Your task to perform on an android device: delete a single message in the gmail app Image 0: 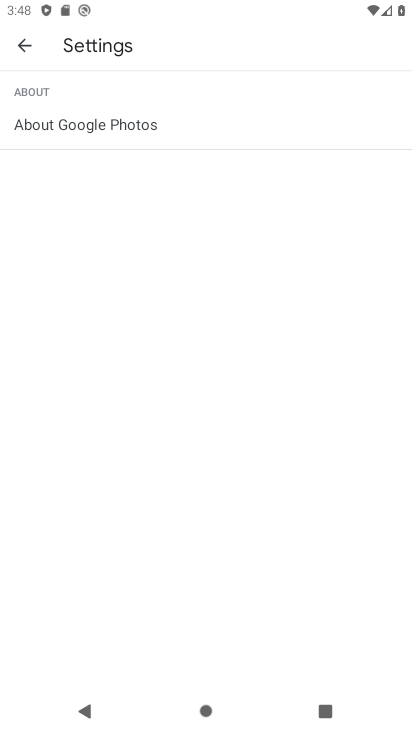
Step 0: press home button
Your task to perform on an android device: delete a single message in the gmail app Image 1: 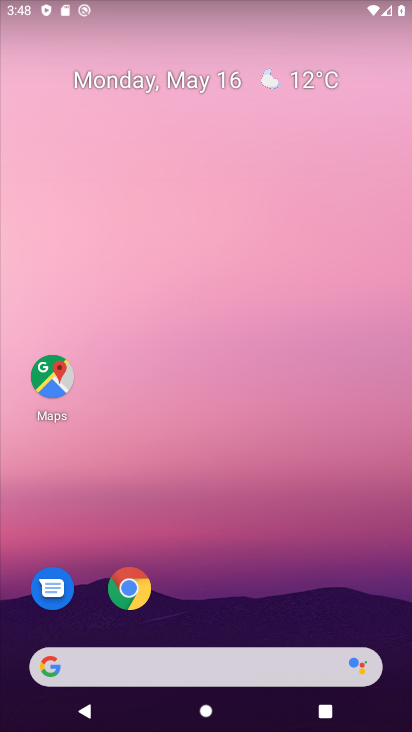
Step 1: drag from (239, 523) to (209, 182)
Your task to perform on an android device: delete a single message in the gmail app Image 2: 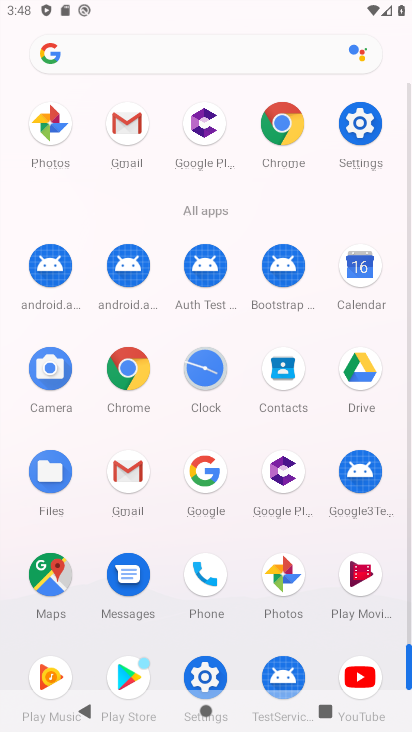
Step 2: click (122, 131)
Your task to perform on an android device: delete a single message in the gmail app Image 3: 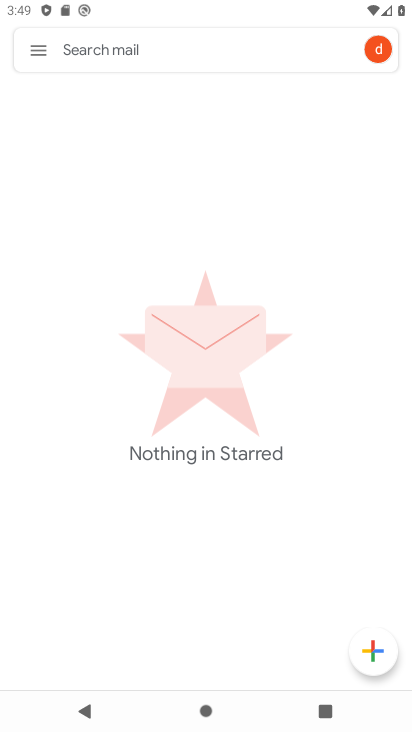
Step 3: task complete